Your task to perform on an android device: Go to settings Image 0: 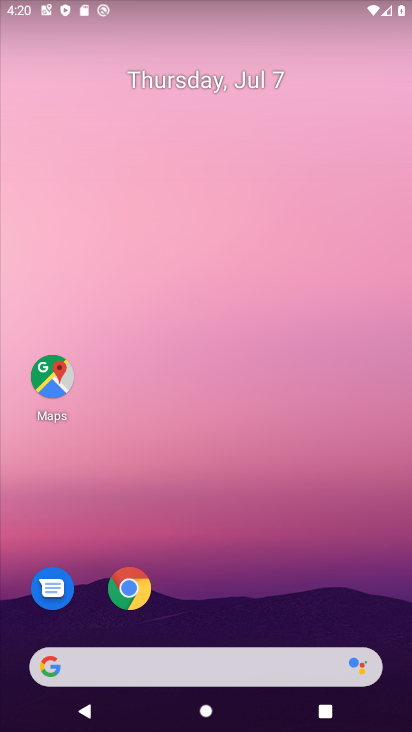
Step 0: drag from (186, 658) to (190, 5)
Your task to perform on an android device: Go to settings Image 1: 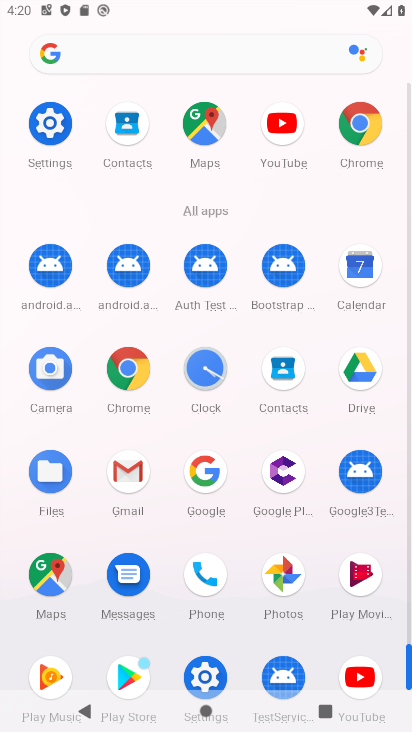
Step 1: click (41, 125)
Your task to perform on an android device: Go to settings Image 2: 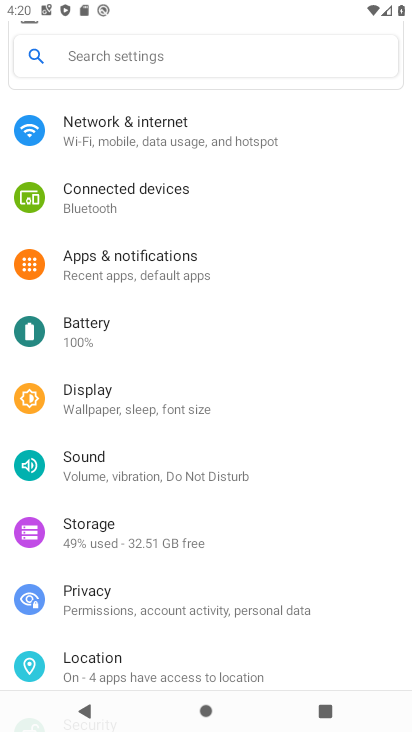
Step 2: task complete